Your task to perform on an android device: check google app version Image 0: 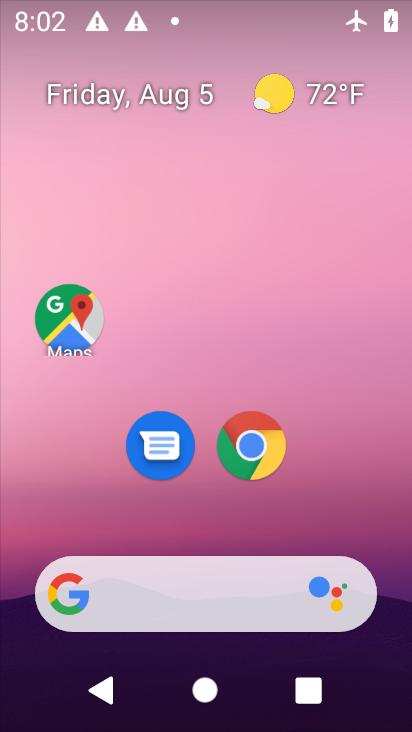
Step 0: drag from (209, 519) to (235, 64)
Your task to perform on an android device: check google app version Image 1: 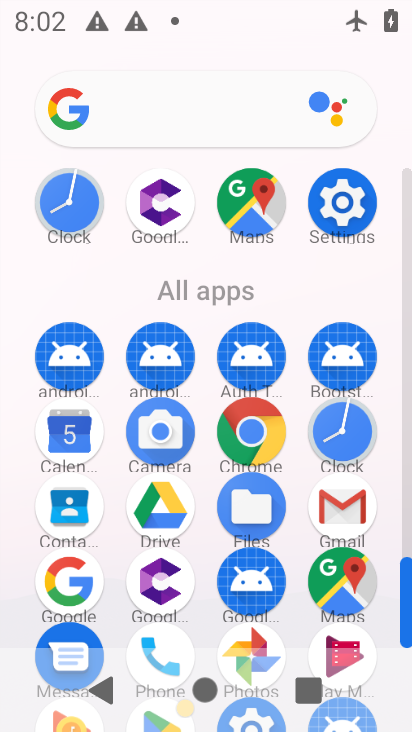
Step 1: click (89, 569)
Your task to perform on an android device: check google app version Image 2: 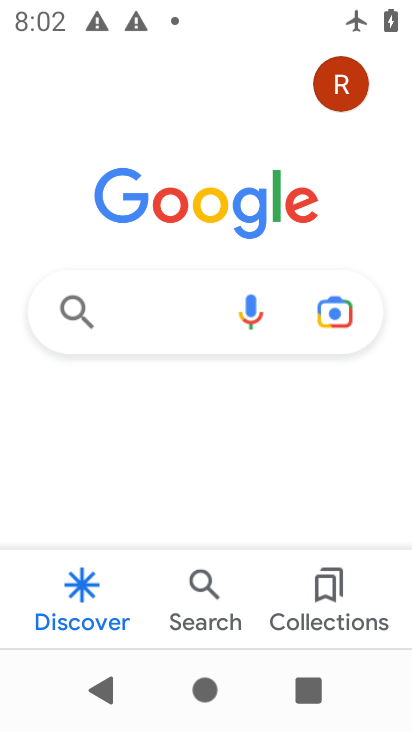
Step 2: click (343, 94)
Your task to perform on an android device: check google app version Image 3: 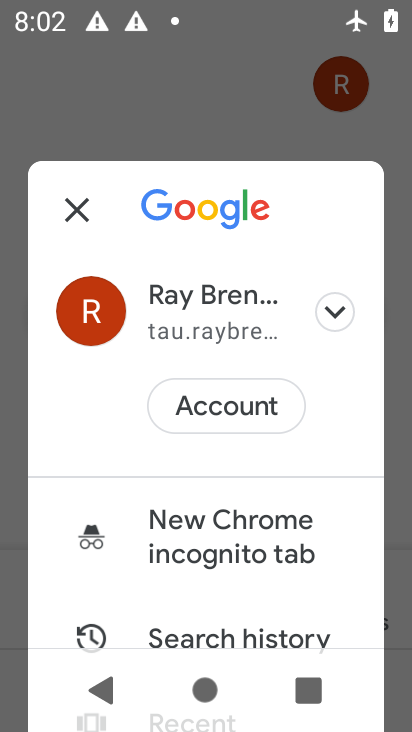
Step 3: drag from (173, 603) to (206, 247)
Your task to perform on an android device: check google app version Image 4: 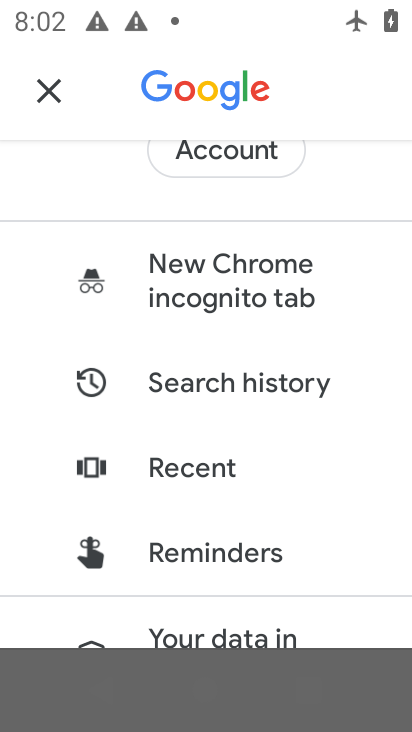
Step 4: drag from (222, 587) to (272, 285)
Your task to perform on an android device: check google app version Image 5: 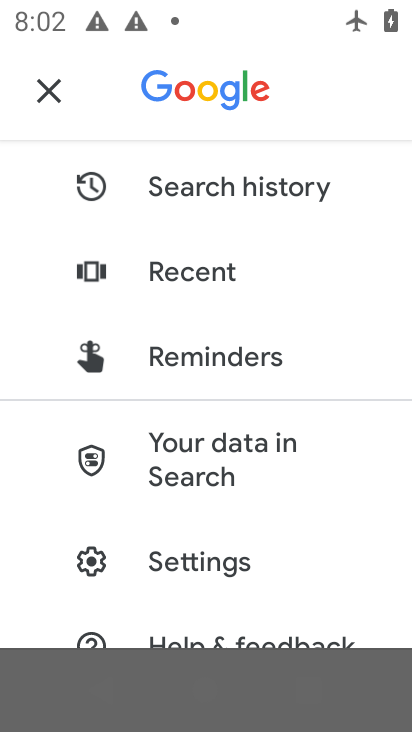
Step 5: click (246, 555)
Your task to perform on an android device: check google app version Image 6: 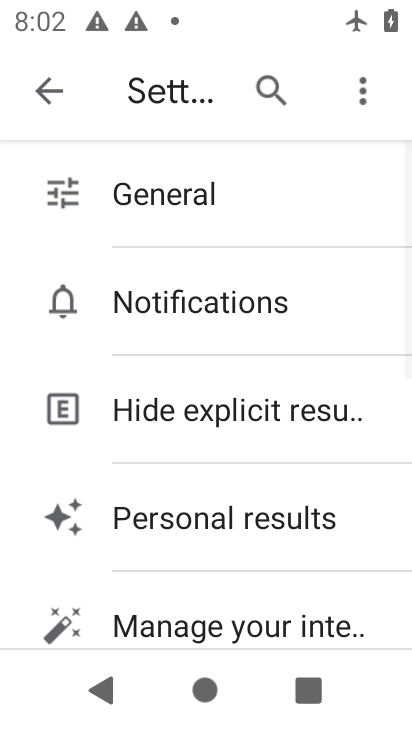
Step 6: drag from (231, 567) to (266, 209)
Your task to perform on an android device: check google app version Image 7: 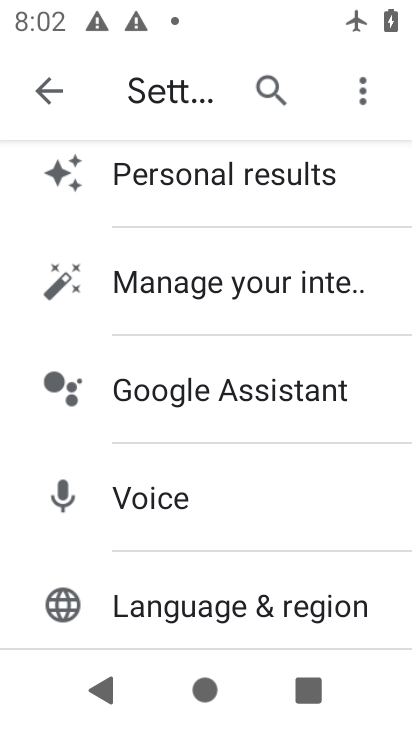
Step 7: drag from (270, 576) to (310, 200)
Your task to perform on an android device: check google app version Image 8: 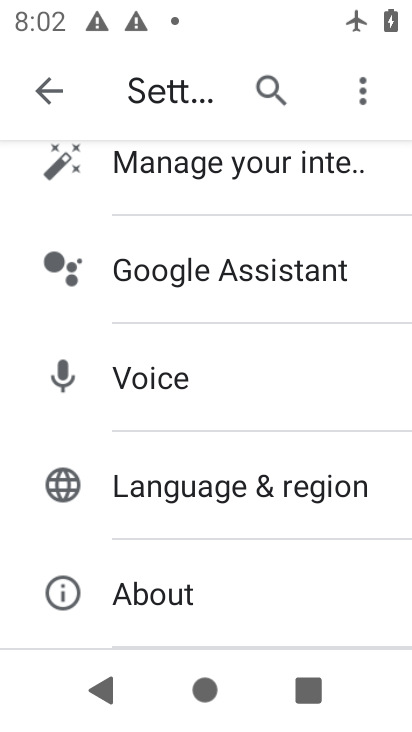
Step 8: drag from (215, 536) to (209, 180)
Your task to perform on an android device: check google app version Image 9: 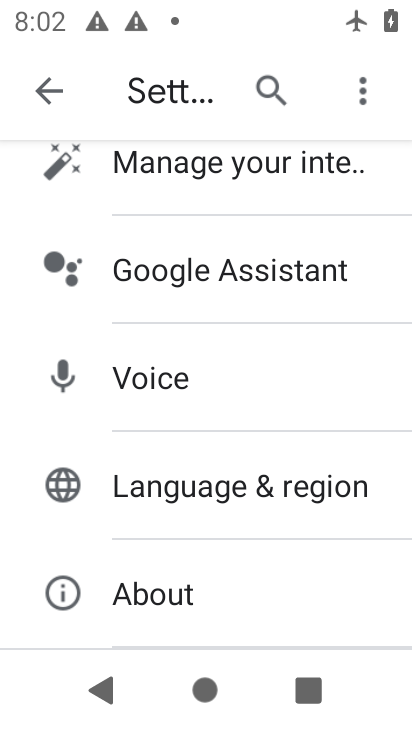
Step 9: drag from (177, 595) to (192, 327)
Your task to perform on an android device: check google app version Image 10: 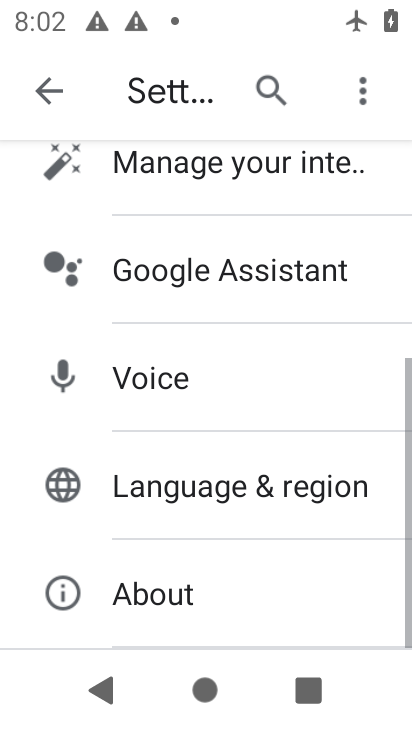
Step 10: click (152, 580)
Your task to perform on an android device: check google app version Image 11: 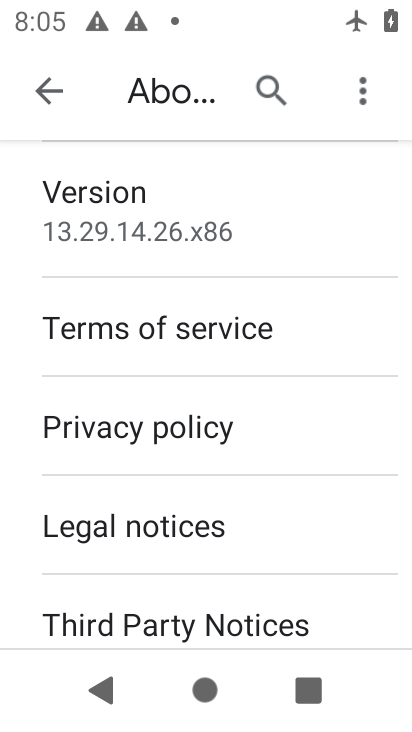
Step 11: click (166, 203)
Your task to perform on an android device: check google app version Image 12: 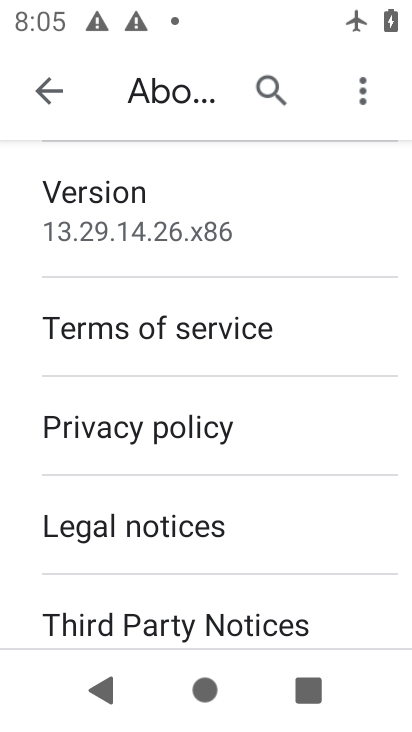
Step 12: click (213, 196)
Your task to perform on an android device: check google app version Image 13: 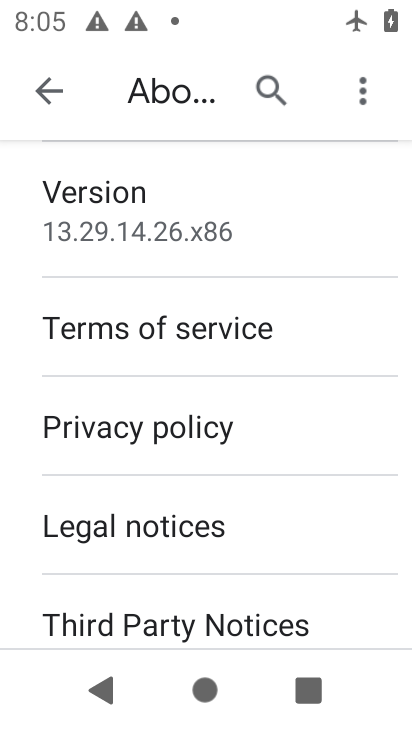
Step 13: task complete